Your task to perform on an android device: install app "DoorDash - Food Delivery" Image 0: 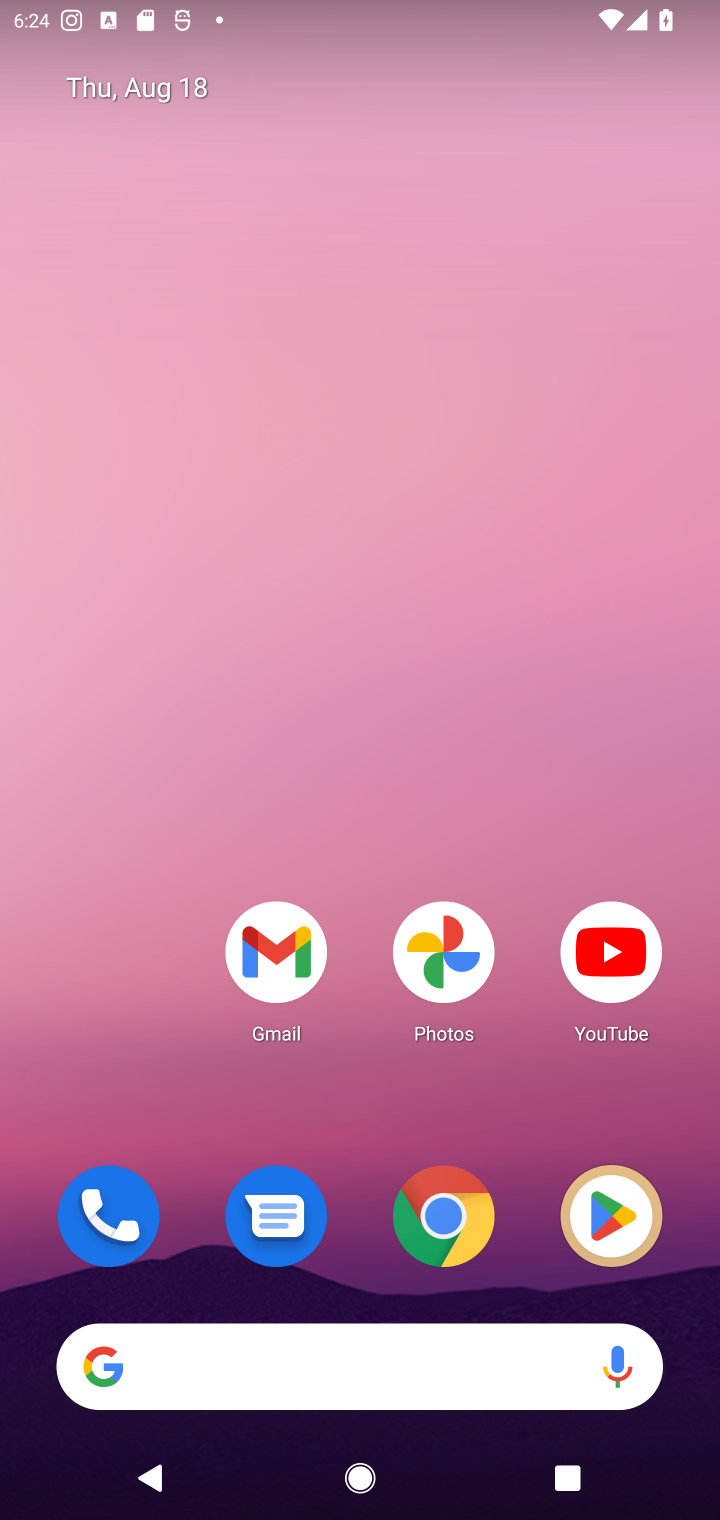
Step 0: click (570, 1175)
Your task to perform on an android device: install app "DoorDash - Food Delivery" Image 1: 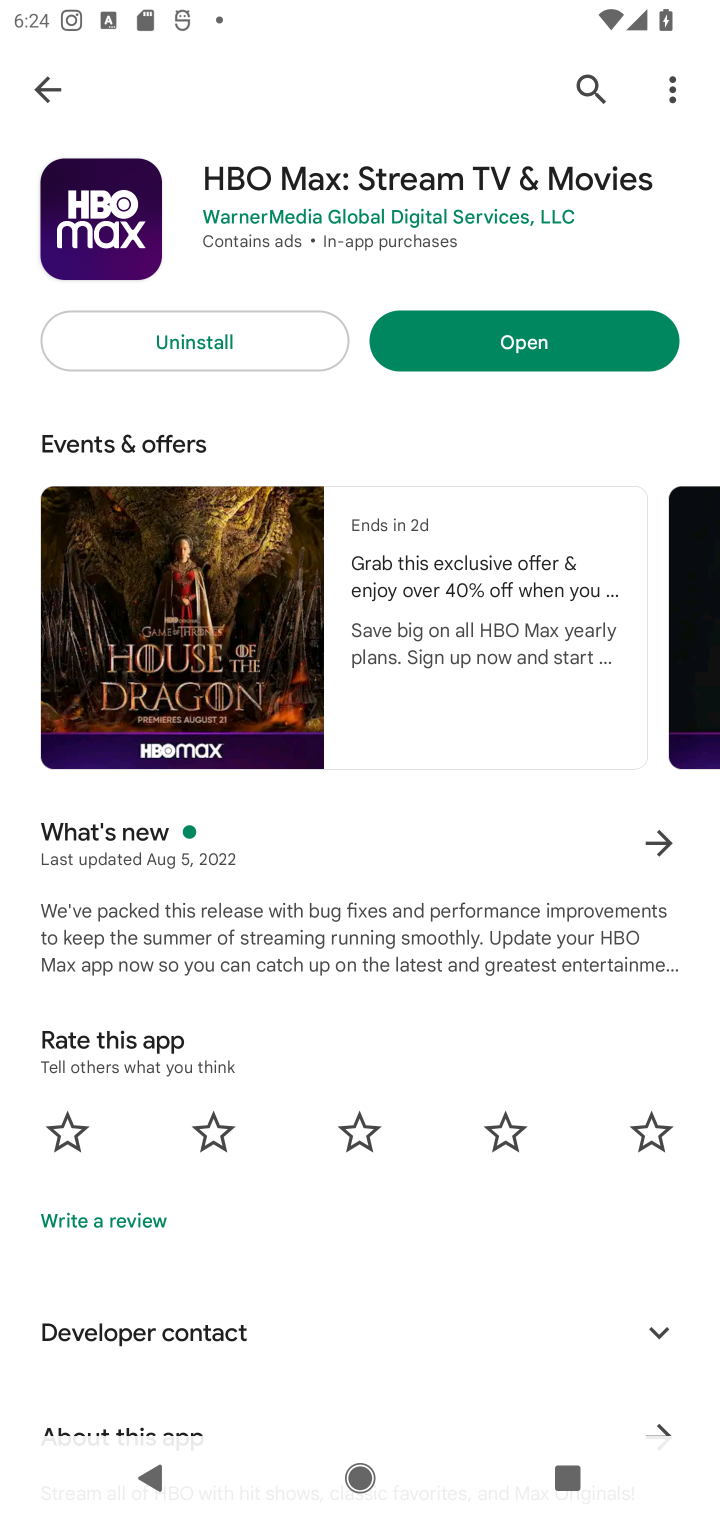
Step 1: click (573, 83)
Your task to perform on an android device: install app "DoorDash - Food Delivery" Image 2: 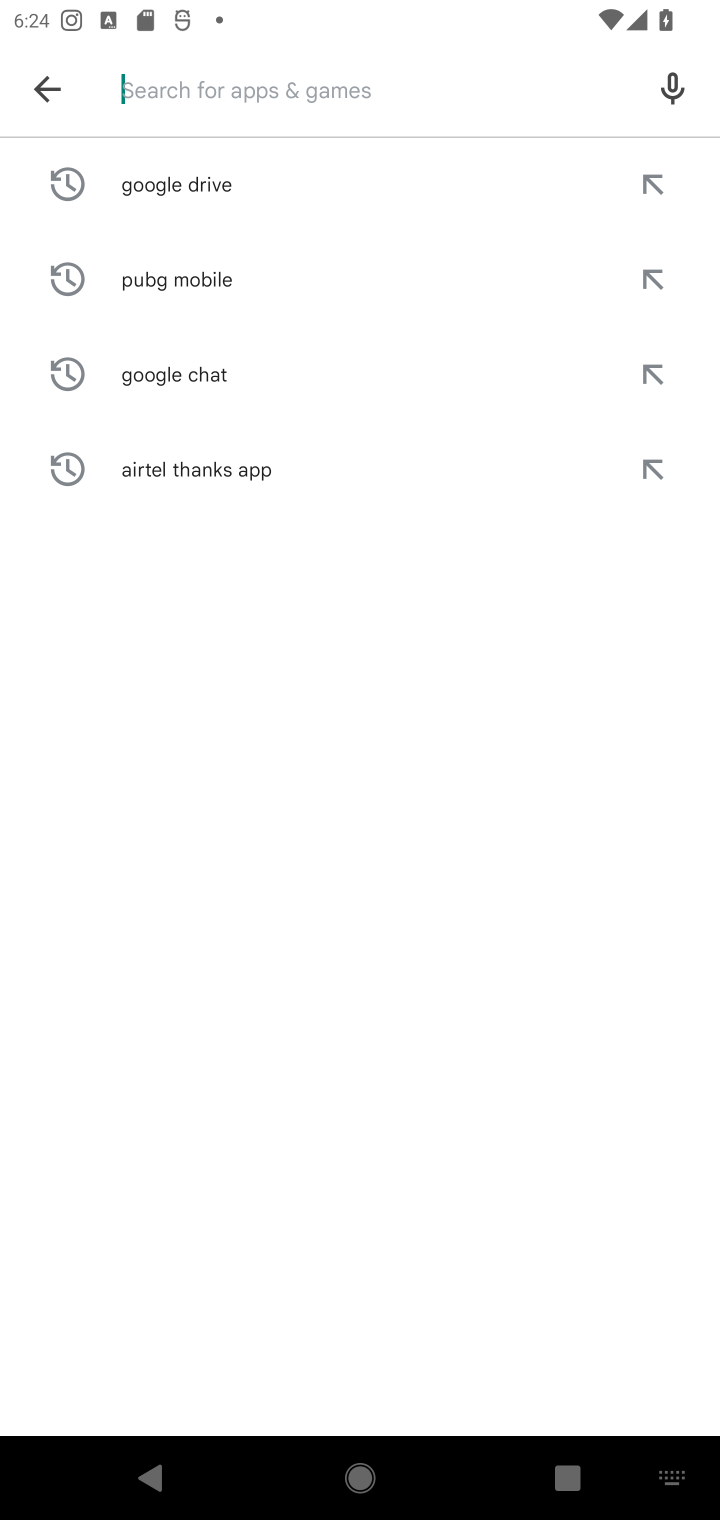
Step 2: type "DoorDash - Food Delivery"
Your task to perform on an android device: install app "DoorDash - Food Delivery" Image 3: 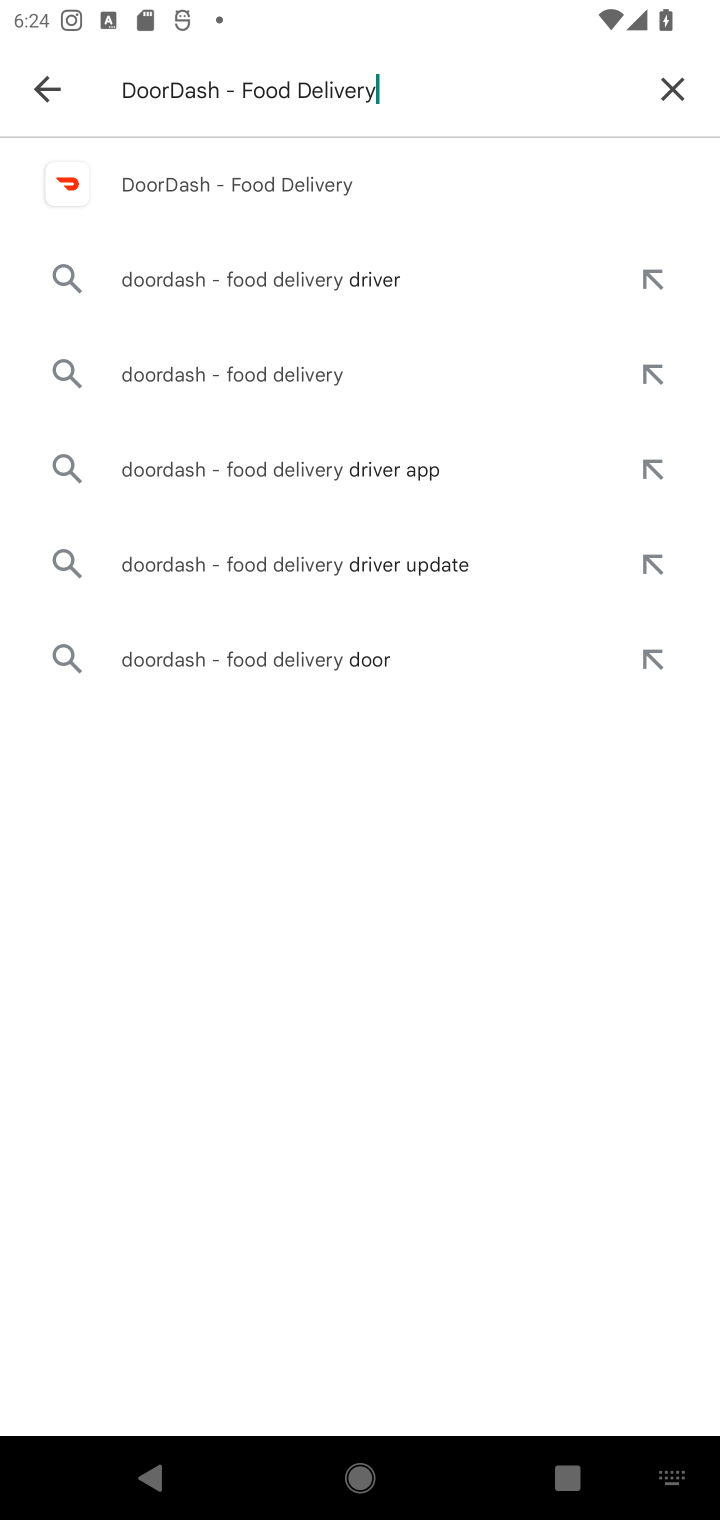
Step 3: click (266, 180)
Your task to perform on an android device: install app "DoorDash - Food Delivery" Image 4: 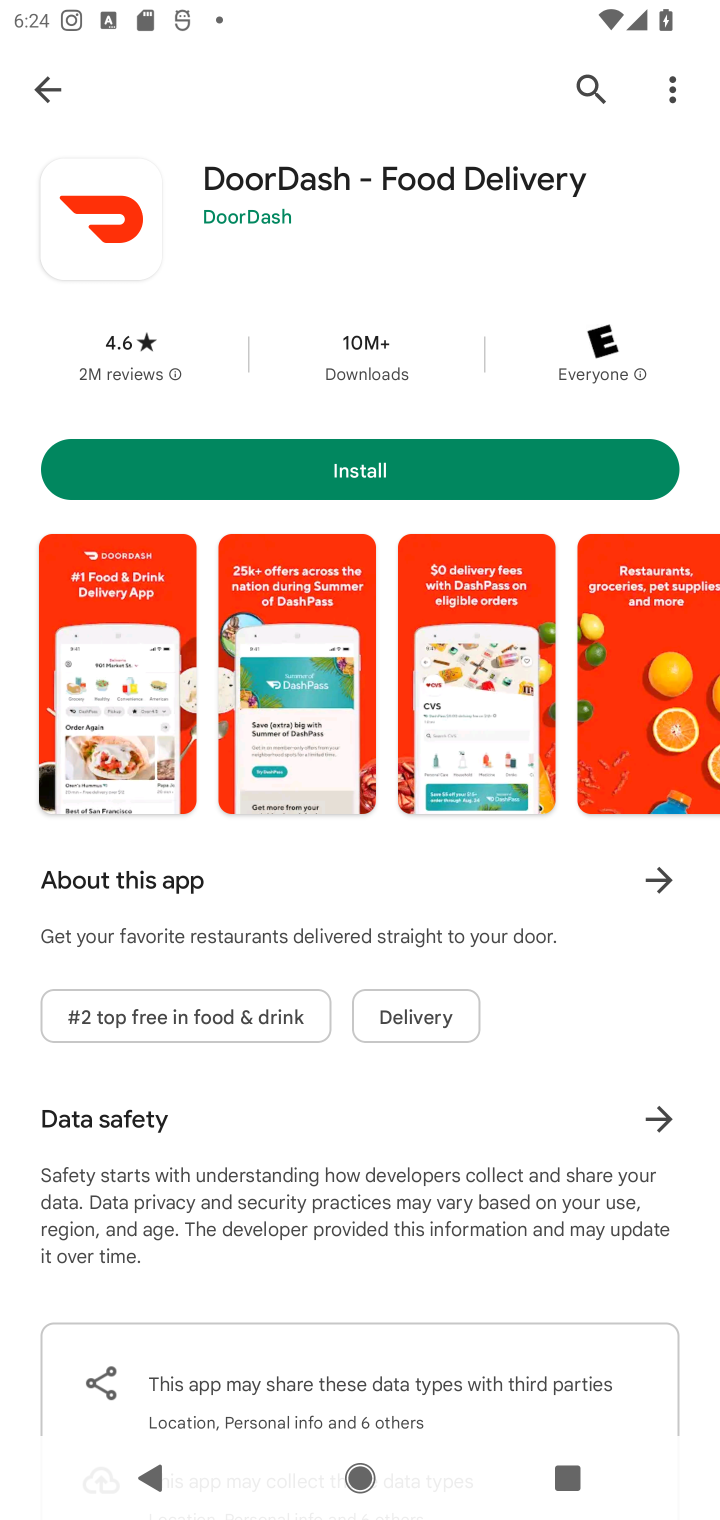
Step 4: click (458, 449)
Your task to perform on an android device: install app "DoorDash - Food Delivery" Image 5: 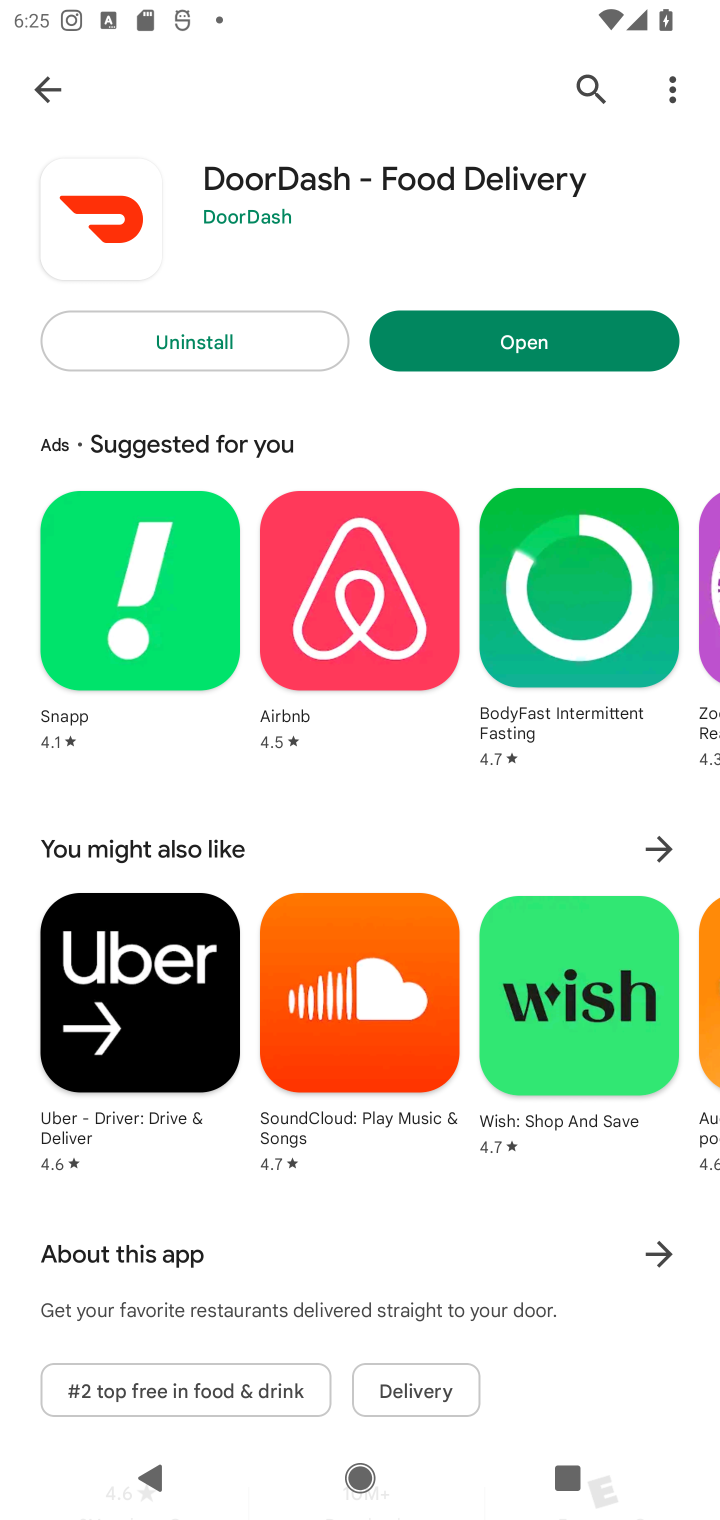
Step 5: task complete